Your task to perform on an android device: remove spam from my inbox in the gmail app Image 0: 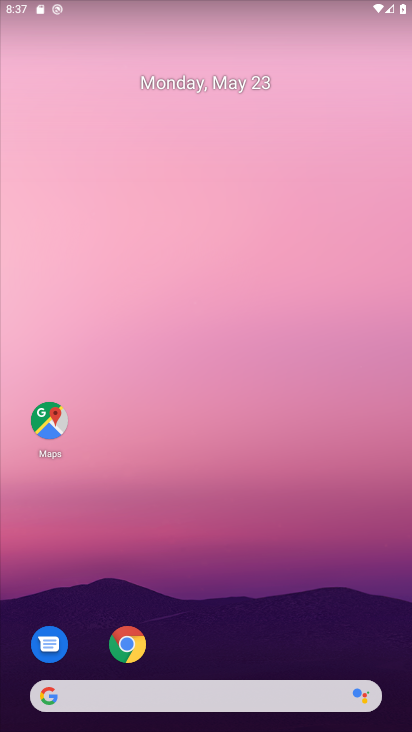
Step 0: drag from (350, 604) to (373, 151)
Your task to perform on an android device: remove spam from my inbox in the gmail app Image 1: 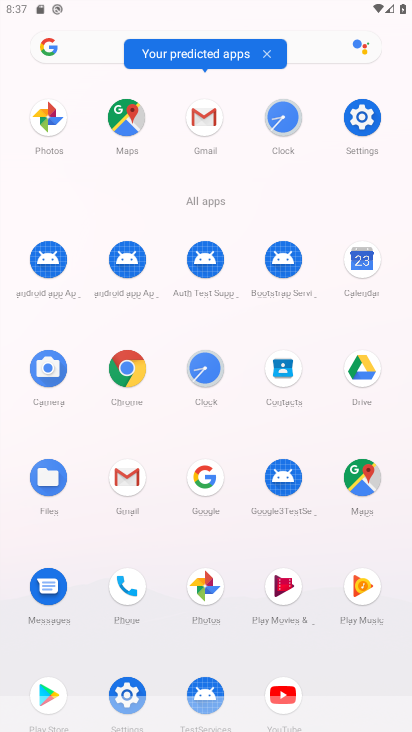
Step 1: click (116, 483)
Your task to perform on an android device: remove spam from my inbox in the gmail app Image 2: 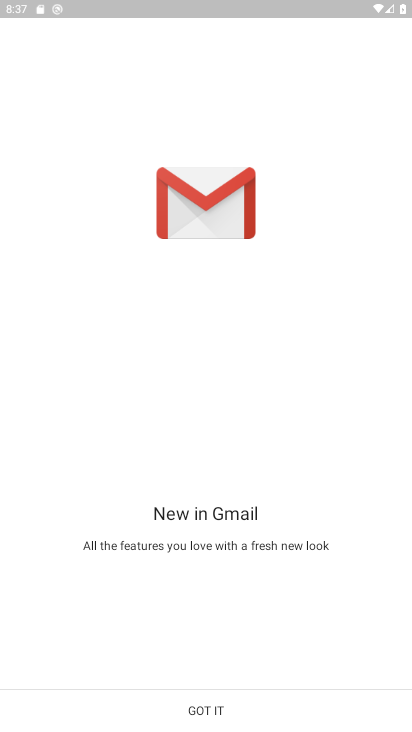
Step 2: click (223, 716)
Your task to perform on an android device: remove spam from my inbox in the gmail app Image 3: 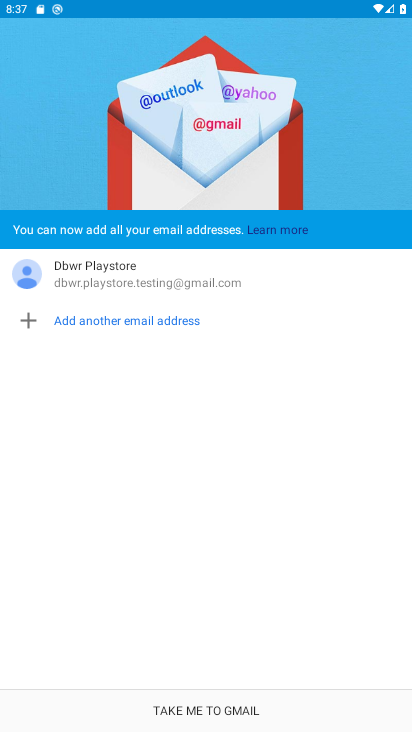
Step 3: click (228, 711)
Your task to perform on an android device: remove spam from my inbox in the gmail app Image 4: 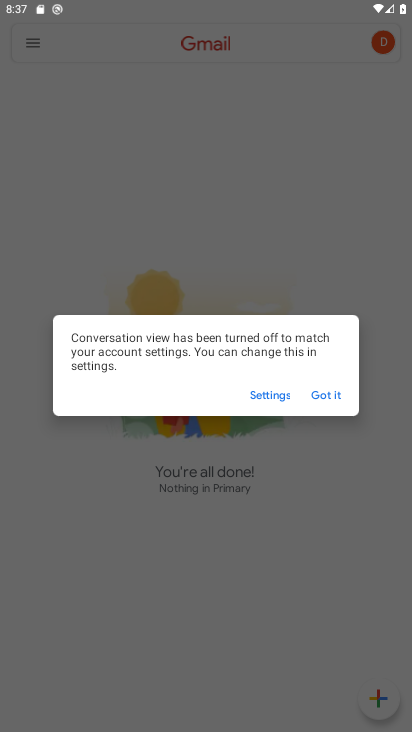
Step 4: click (321, 392)
Your task to perform on an android device: remove spam from my inbox in the gmail app Image 5: 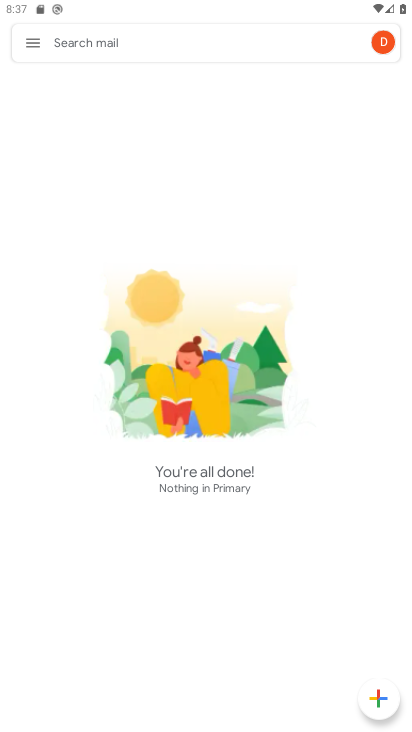
Step 5: click (31, 39)
Your task to perform on an android device: remove spam from my inbox in the gmail app Image 6: 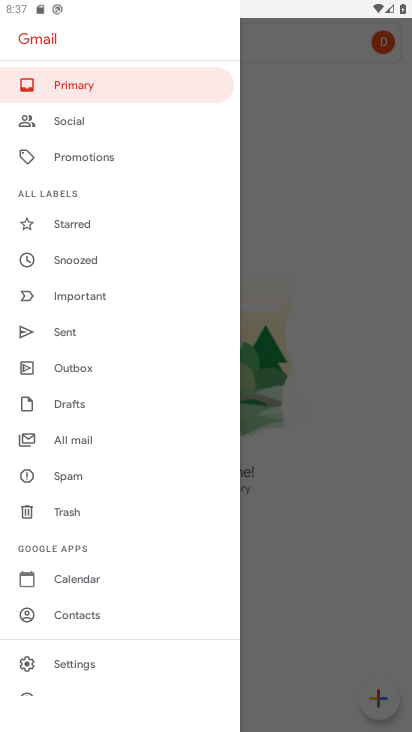
Step 6: click (120, 470)
Your task to perform on an android device: remove spam from my inbox in the gmail app Image 7: 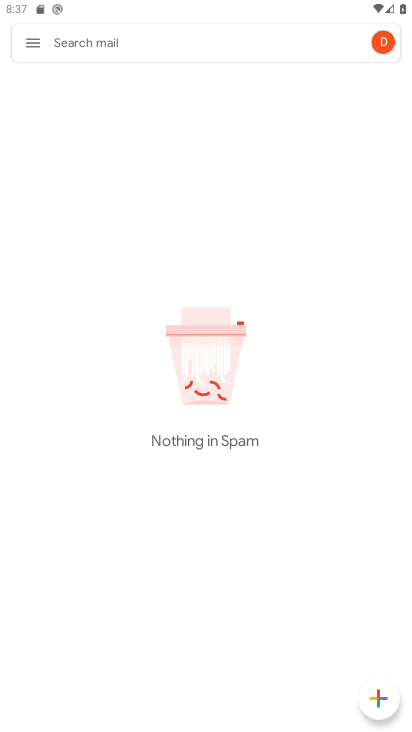
Step 7: task complete